Your task to perform on an android device: Check the weather Image 0: 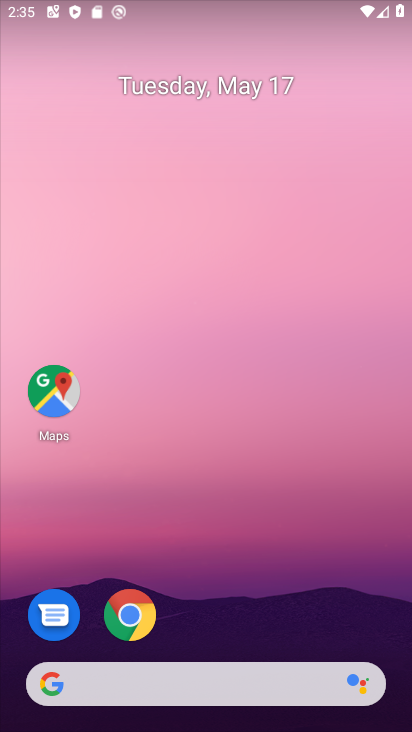
Step 0: drag from (216, 716) to (213, 234)
Your task to perform on an android device: Check the weather Image 1: 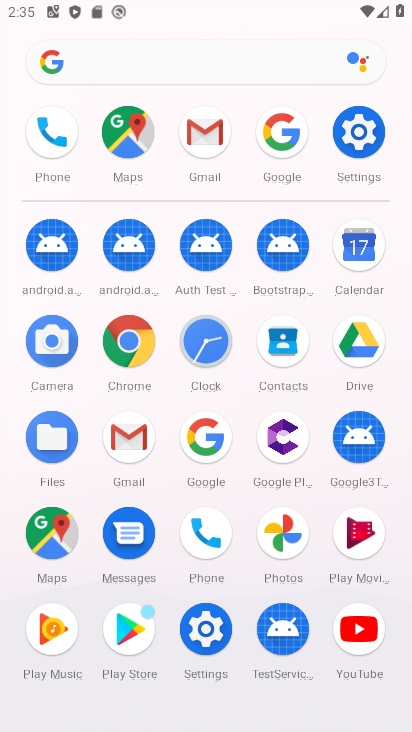
Step 1: click (278, 138)
Your task to perform on an android device: Check the weather Image 2: 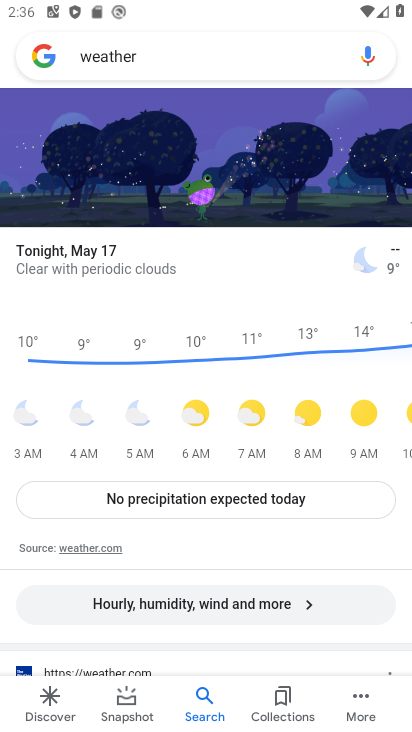
Step 2: task complete